Your task to perform on an android device: What's the weather? Image 0: 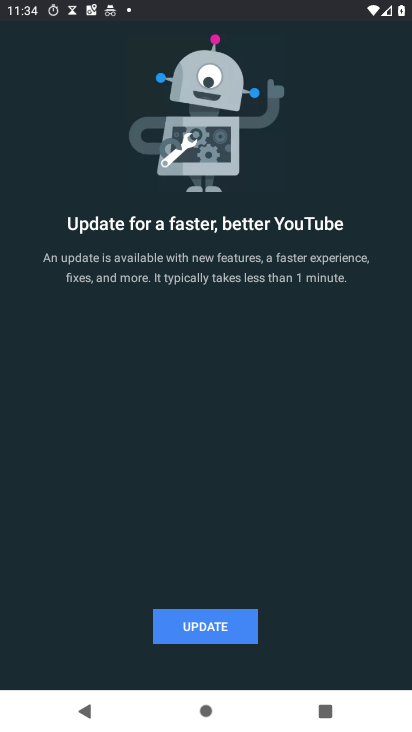
Step 0: drag from (266, 684) to (199, 261)
Your task to perform on an android device: What's the weather? Image 1: 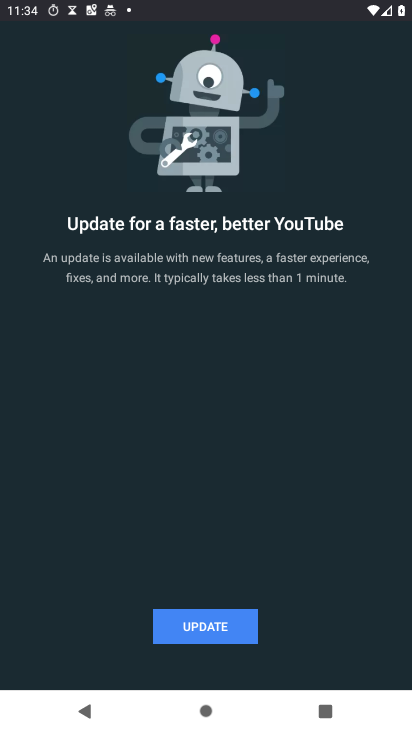
Step 1: press back button
Your task to perform on an android device: What's the weather? Image 2: 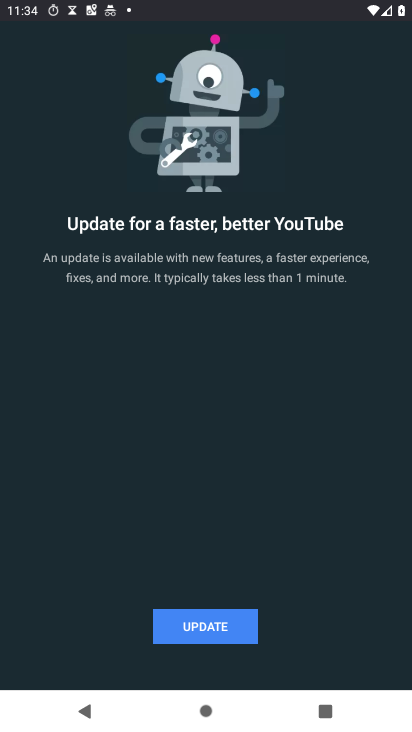
Step 2: press back button
Your task to perform on an android device: What's the weather? Image 3: 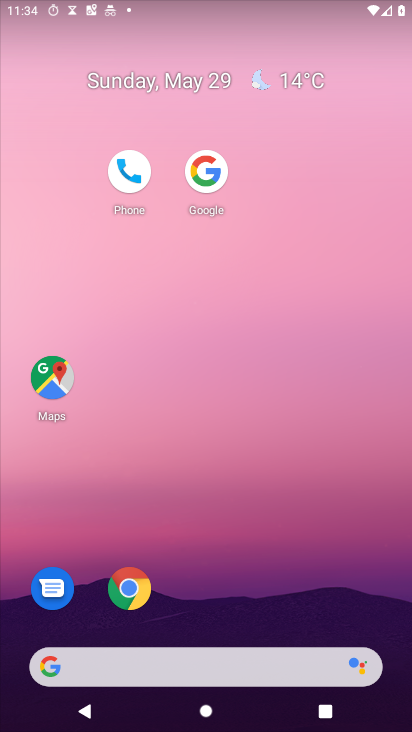
Step 3: press back button
Your task to perform on an android device: What's the weather? Image 4: 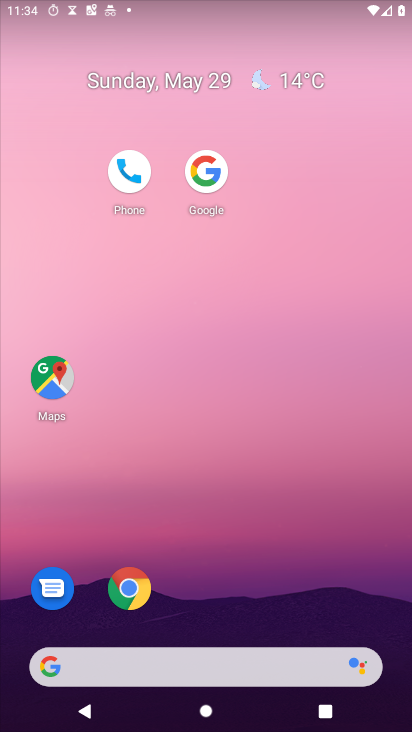
Step 4: drag from (13, 271) to (350, 399)
Your task to perform on an android device: What's the weather? Image 5: 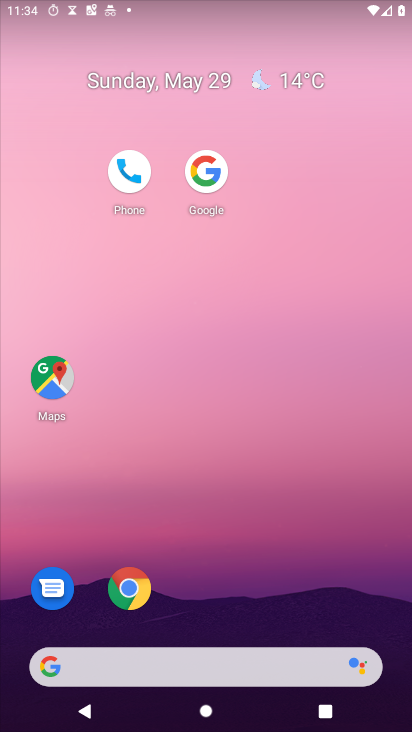
Step 5: click (279, 322)
Your task to perform on an android device: What's the weather? Image 6: 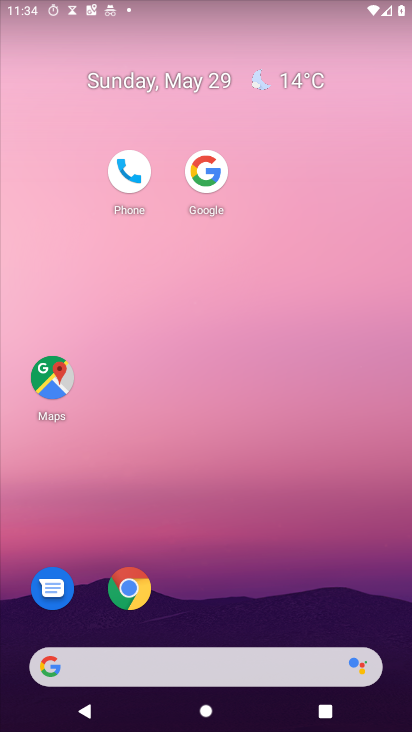
Step 6: drag from (9, 246) to (394, 398)
Your task to perform on an android device: What's the weather? Image 7: 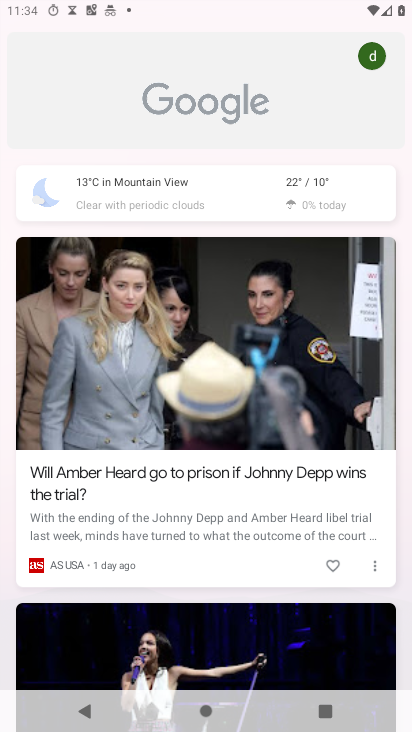
Step 7: drag from (49, 255) to (404, 385)
Your task to perform on an android device: What's the weather? Image 8: 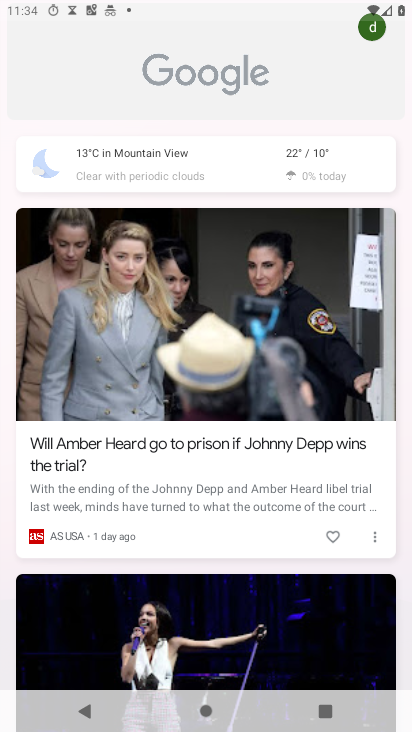
Step 8: click (160, 198)
Your task to perform on an android device: What's the weather? Image 9: 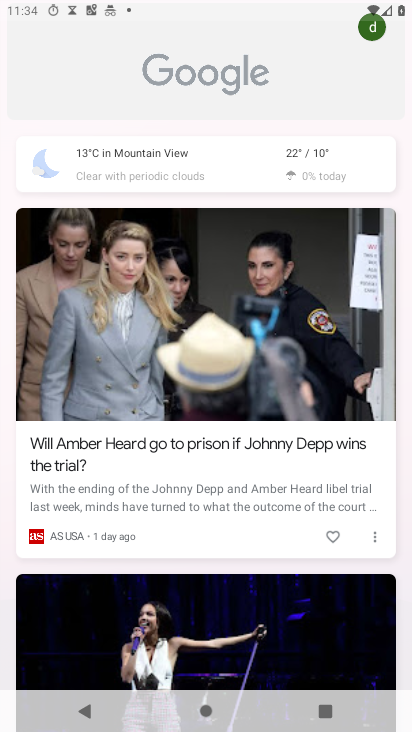
Step 9: click (161, 169)
Your task to perform on an android device: What's the weather? Image 10: 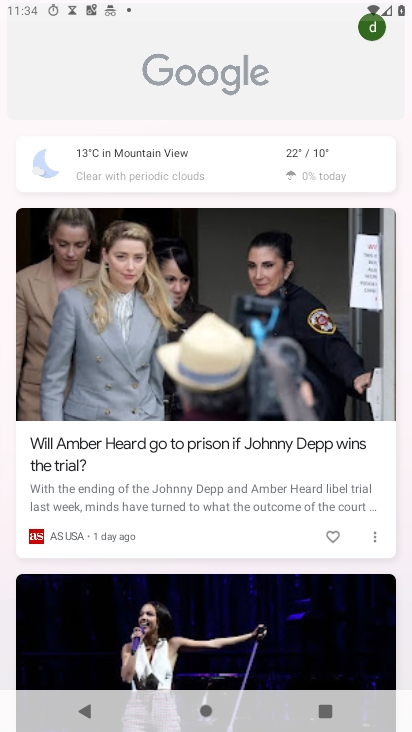
Step 10: click (166, 169)
Your task to perform on an android device: What's the weather? Image 11: 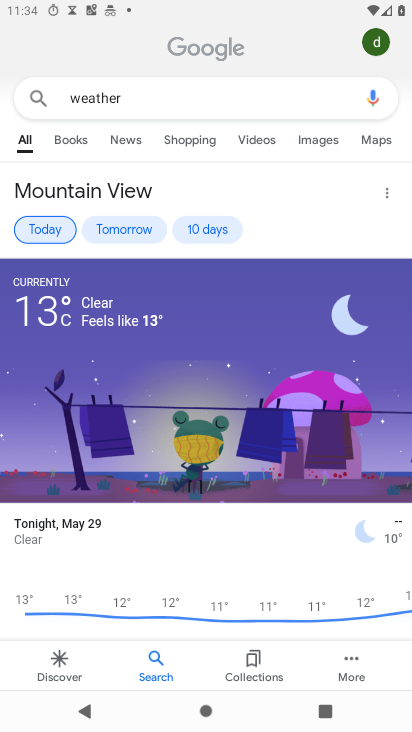
Step 11: task complete